Your task to perform on an android device: toggle javascript in the chrome app Image 0: 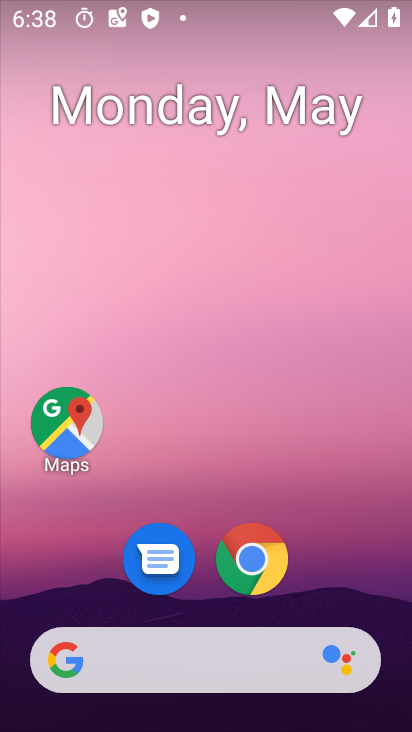
Step 0: drag from (394, 636) to (320, 10)
Your task to perform on an android device: toggle javascript in the chrome app Image 1: 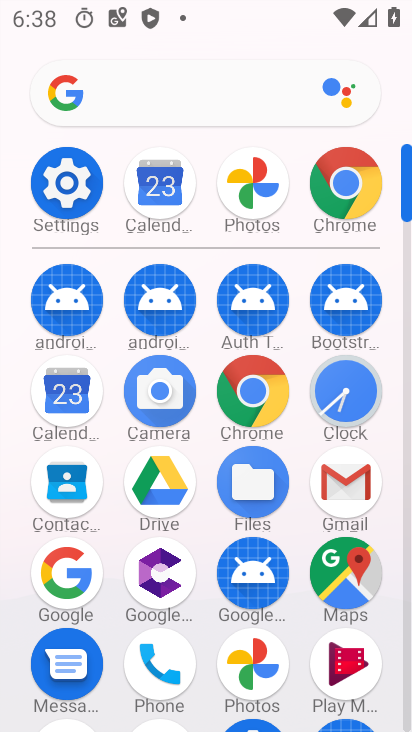
Step 1: click (353, 179)
Your task to perform on an android device: toggle javascript in the chrome app Image 2: 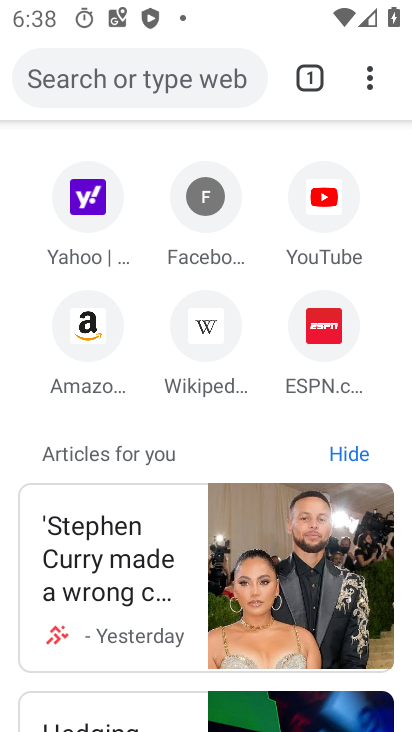
Step 2: click (371, 67)
Your task to perform on an android device: toggle javascript in the chrome app Image 3: 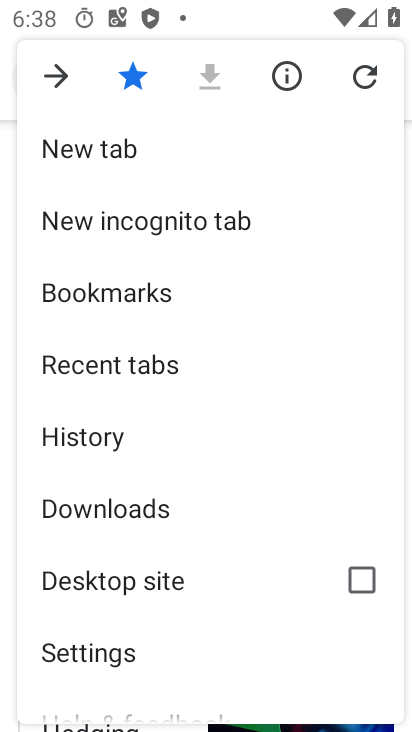
Step 3: click (138, 655)
Your task to perform on an android device: toggle javascript in the chrome app Image 4: 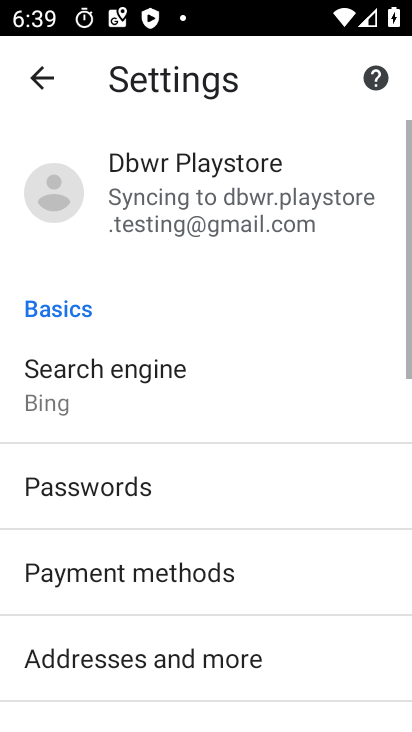
Step 4: drag from (138, 654) to (185, 100)
Your task to perform on an android device: toggle javascript in the chrome app Image 5: 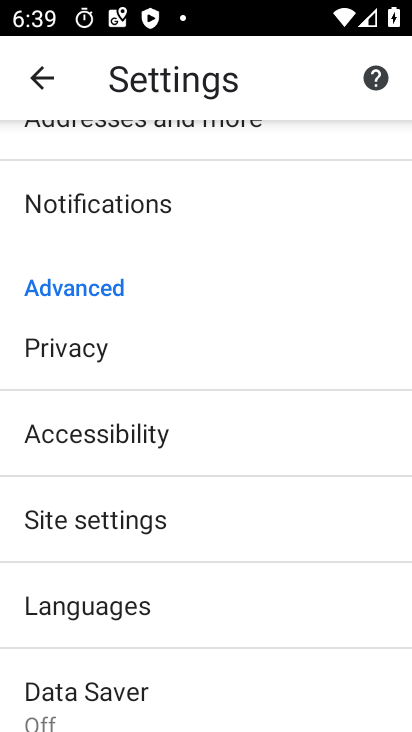
Step 5: click (151, 546)
Your task to perform on an android device: toggle javascript in the chrome app Image 6: 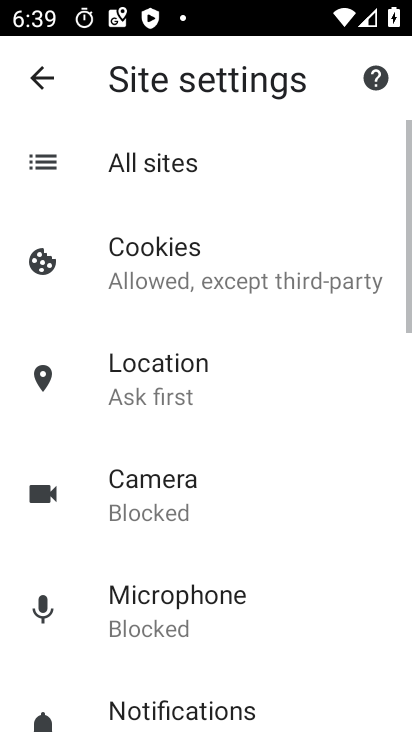
Step 6: drag from (223, 664) to (235, 144)
Your task to perform on an android device: toggle javascript in the chrome app Image 7: 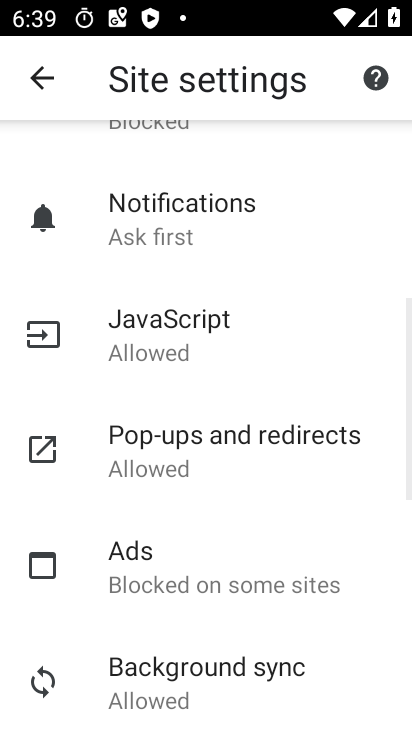
Step 7: click (174, 311)
Your task to perform on an android device: toggle javascript in the chrome app Image 8: 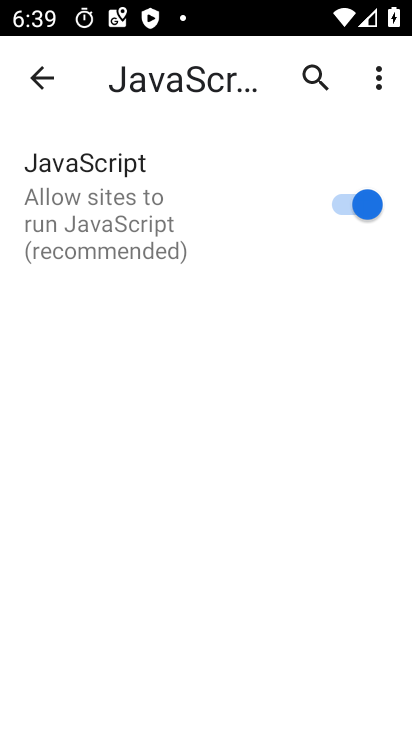
Step 8: click (362, 198)
Your task to perform on an android device: toggle javascript in the chrome app Image 9: 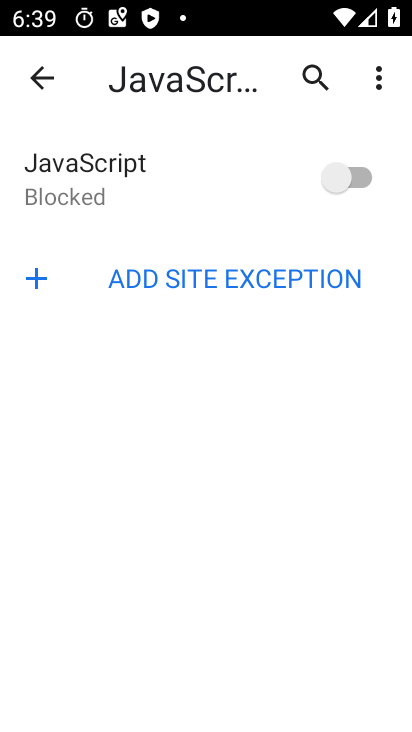
Step 9: task complete